Your task to perform on an android device: create a new album in the google photos Image 0: 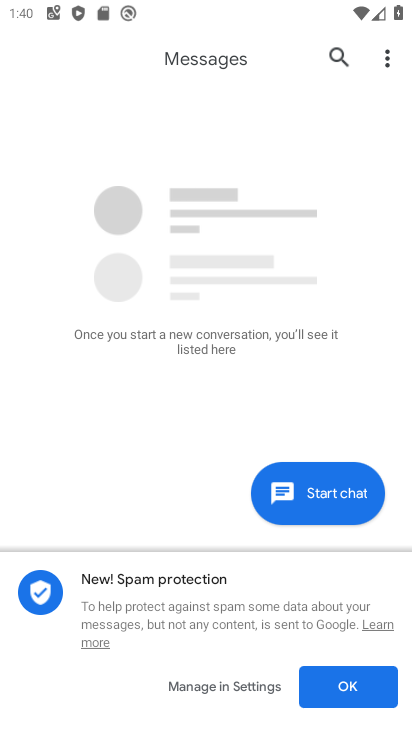
Step 0: press home button
Your task to perform on an android device: create a new album in the google photos Image 1: 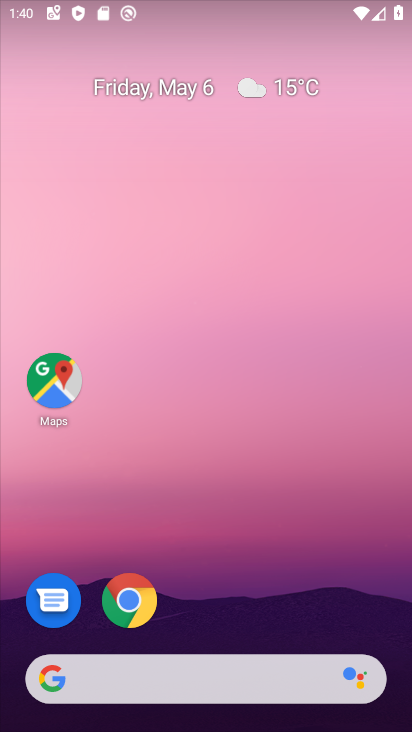
Step 1: drag from (351, 620) to (325, 69)
Your task to perform on an android device: create a new album in the google photos Image 2: 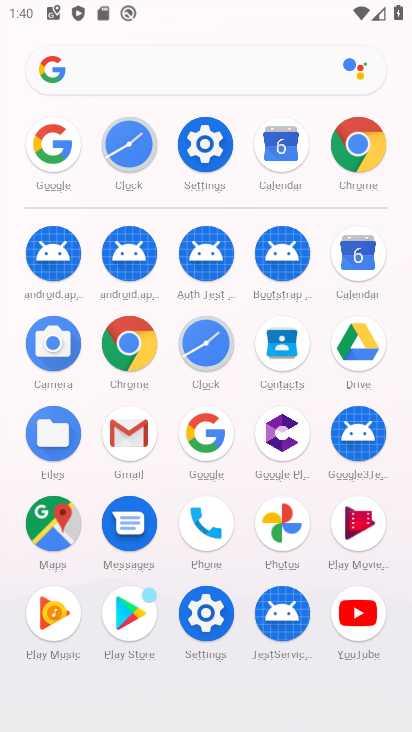
Step 2: click (288, 524)
Your task to perform on an android device: create a new album in the google photos Image 3: 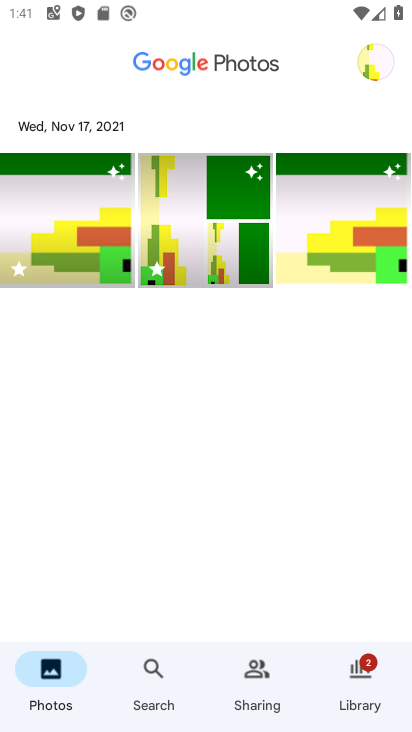
Step 3: click (77, 223)
Your task to perform on an android device: create a new album in the google photos Image 4: 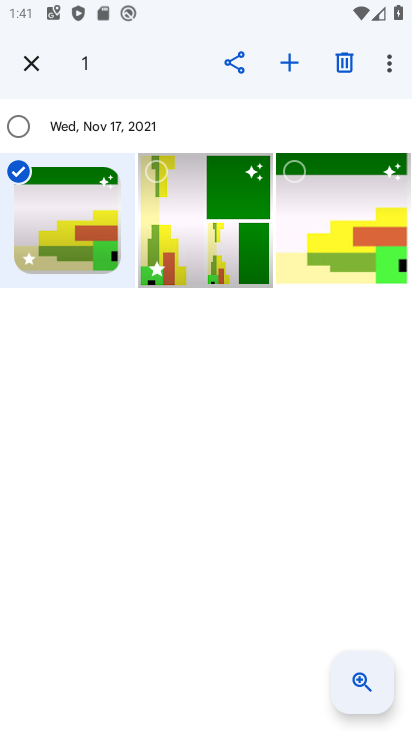
Step 4: click (284, 61)
Your task to perform on an android device: create a new album in the google photos Image 5: 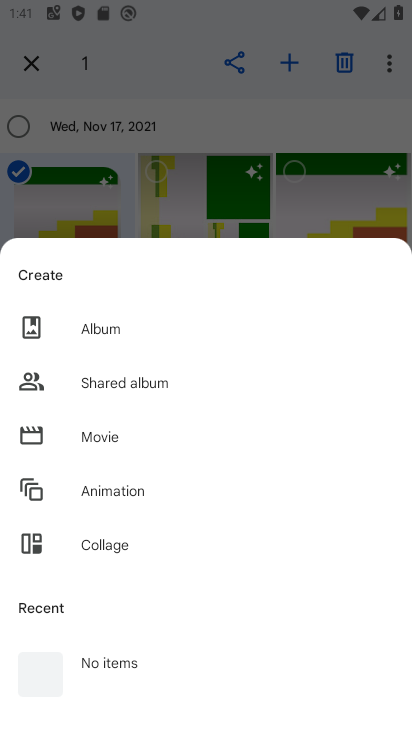
Step 5: click (116, 330)
Your task to perform on an android device: create a new album in the google photos Image 6: 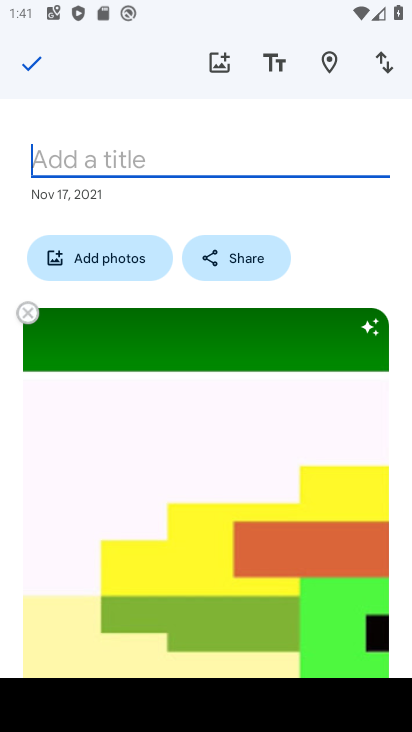
Step 6: type "bomb"
Your task to perform on an android device: create a new album in the google photos Image 7: 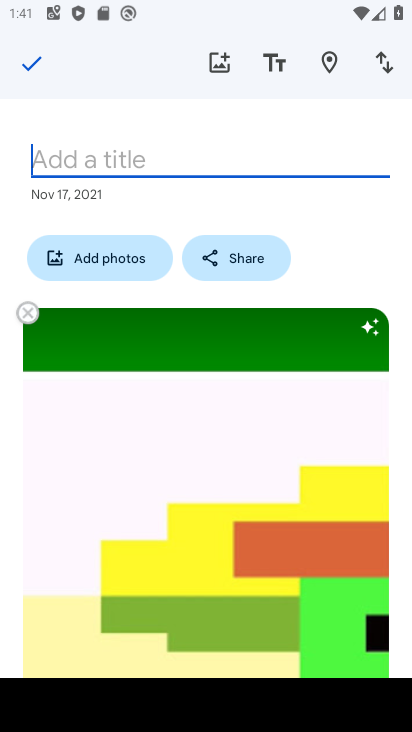
Step 7: click (47, 63)
Your task to perform on an android device: create a new album in the google photos Image 8: 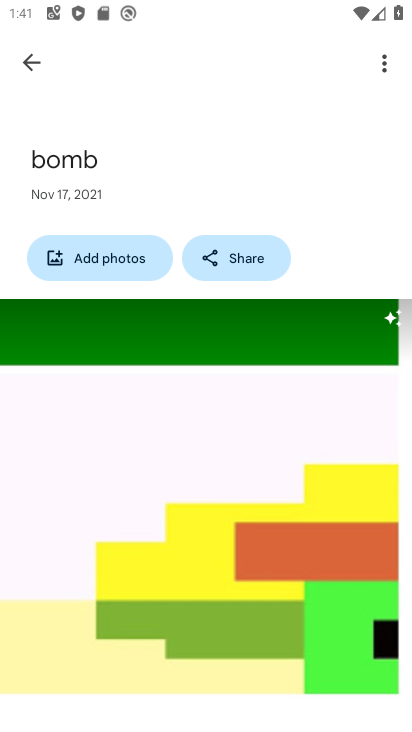
Step 8: task complete